Your task to perform on an android device: allow notifications from all sites in the chrome app Image 0: 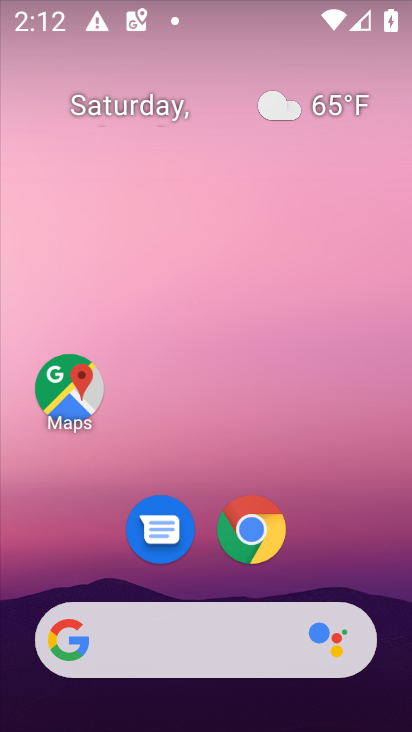
Step 0: click (275, 541)
Your task to perform on an android device: allow notifications from all sites in the chrome app Image 1: 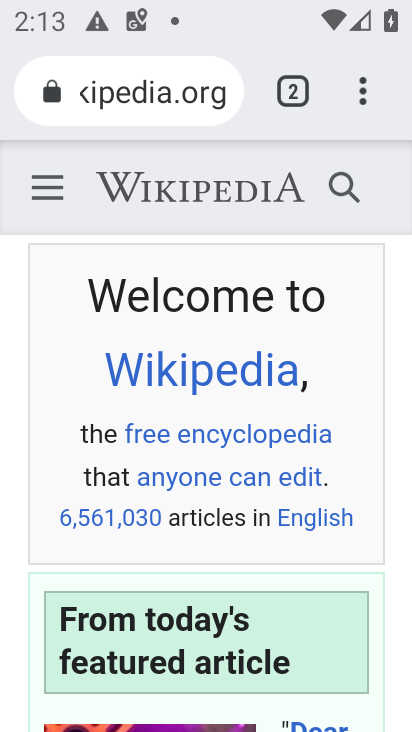
Step 1: click (378, 86)
Your task to perform on an android device: allow notifications from all sites in the chrome app Image 2: 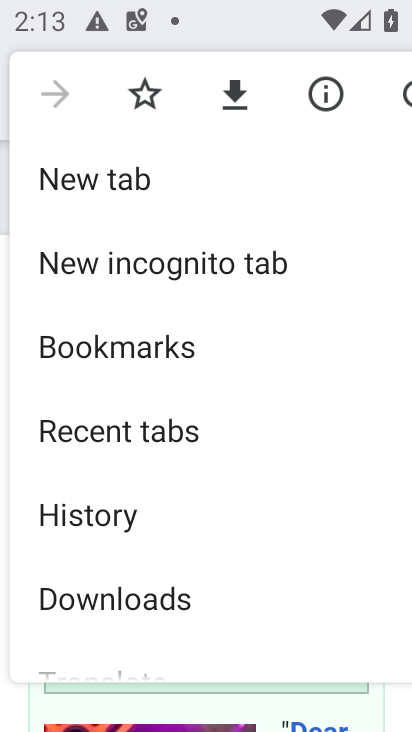
Step 2: drag from (184, 626) to (158, 33)
Your task to perform on an android device: allow notifications from all sites in the chrome app Image 3: 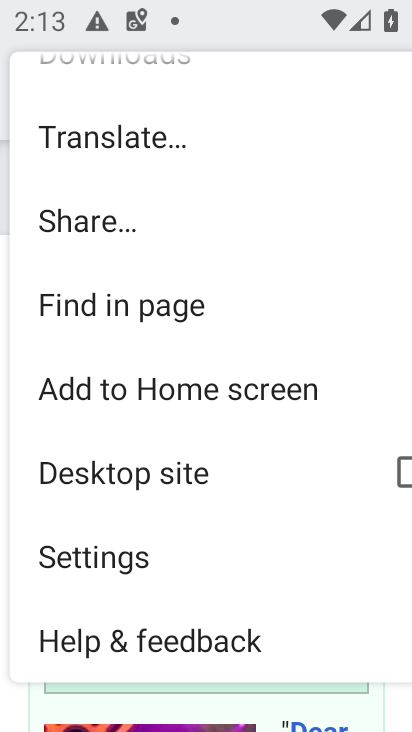
Step 3: click (129, 552)
Your task to perform on an android device: allow notifications from all sites in the chrome app Image 4: 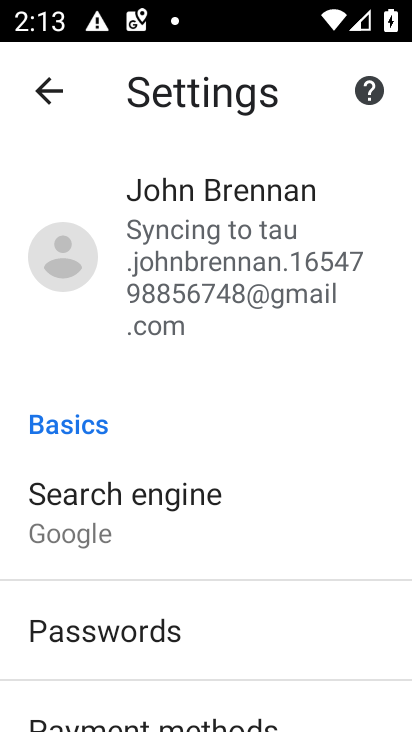
Step 4: drag from (235, 696) to (172, 57)
Your task to perform on an android device: allow notifications from all sites in the chrome app Image 5: 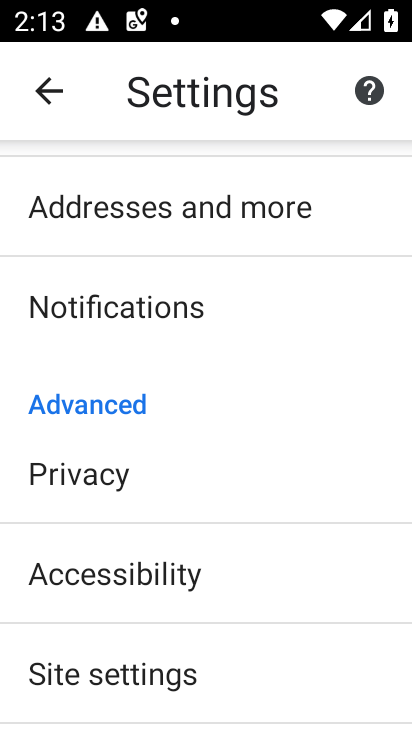
Step 5: click (268, 674)
Your task to perform on an android device: allow notifications from all sites in the chrome app Image 6: 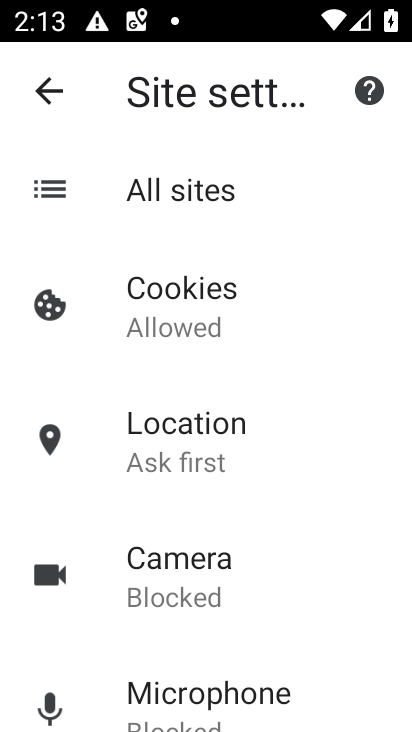
Step 6: drag from (311, 663) to (297, 321)
Your task to perform on an android device: allow notifications from all sites in the chrome app Image 7: 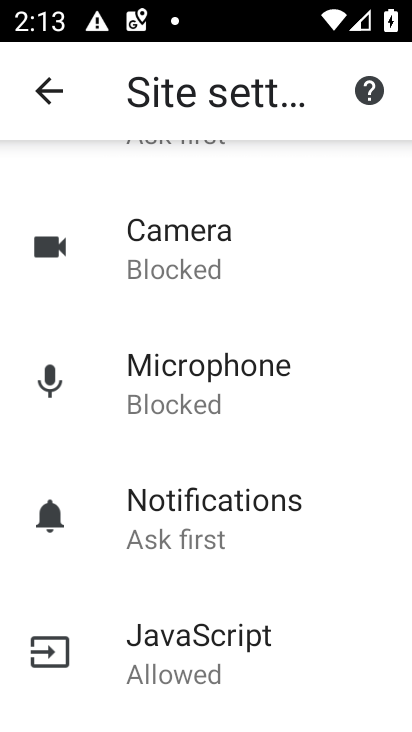
Step 7: click (320, 508)
Your task to perform on an android device: allow notifications from all sites in the chrome app Image 8: 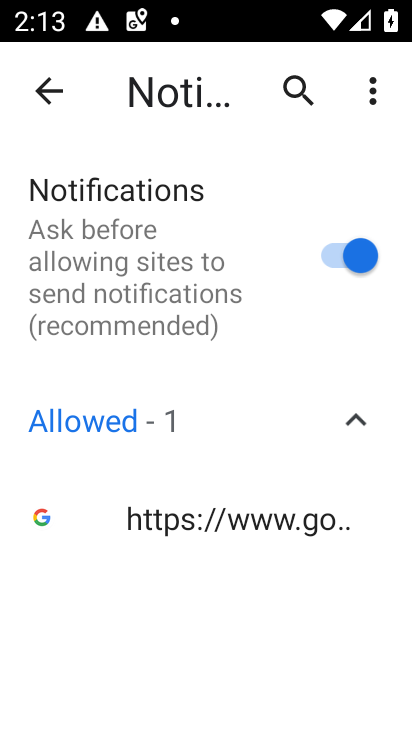
Step 8: task complete